Your task to perform on an android device: Go to Wikipedia Image 0: 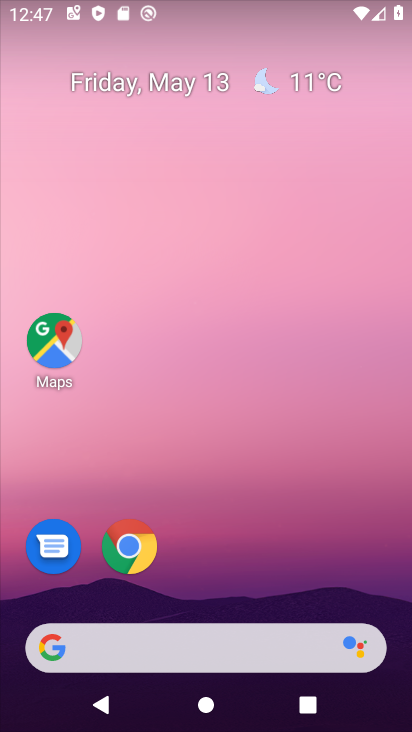
Step 0: click (148, 551)
Your task to perform on an android device: Go to Wikipedia Image 1: 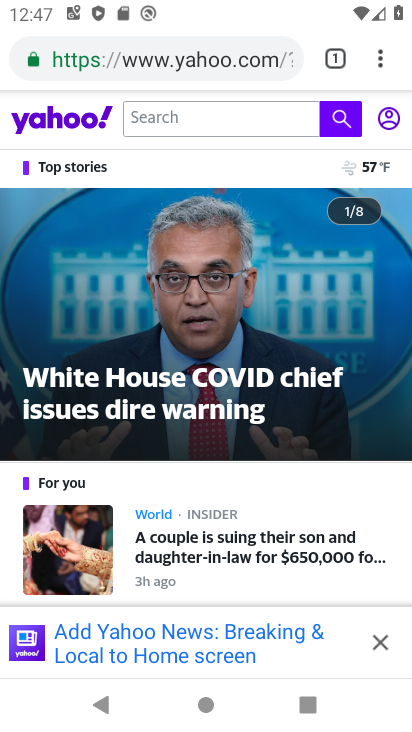
Step 1: click (378, 52)
Your task to perform on an android device: Go to Wikipedia Image 2: 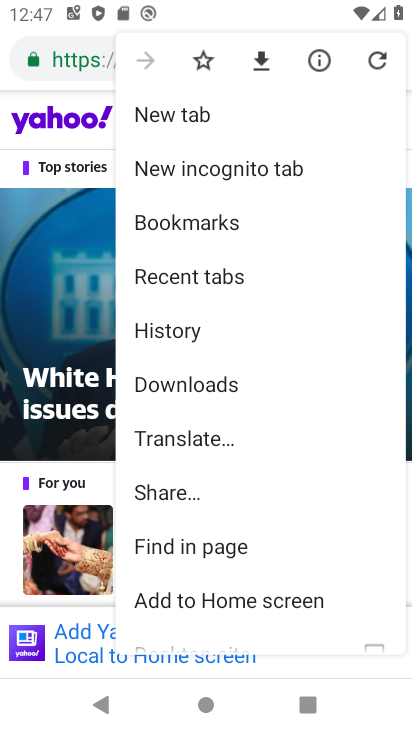
Step 2: drag from (247, 498) to (281, 274)
Your task to perform on an android device: Go to Wikipedia Image 3: 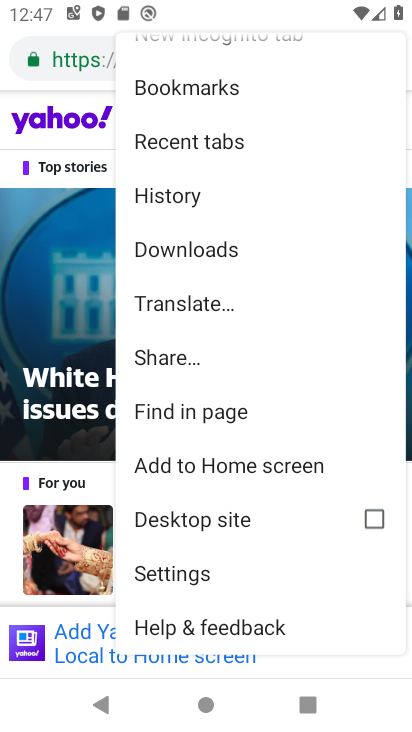
Step 3: drag from (225, 460) to (285, 224)
Your task to perform on an android device: Go to Wikipedia Image 4: 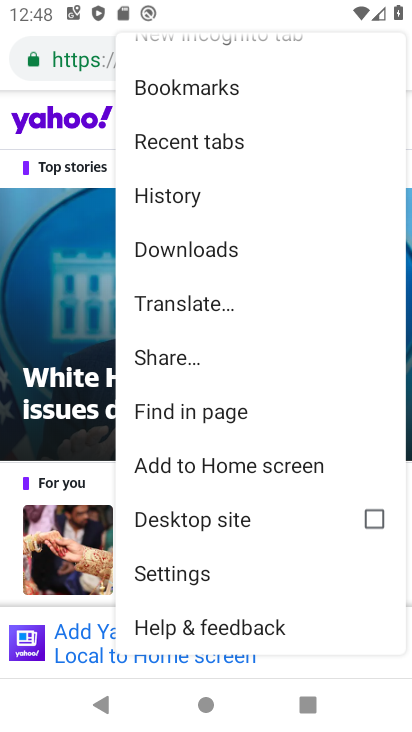
Step 4: click (58, 328)
Your task to perform on an android device: Go to Wikipedia Image 5: 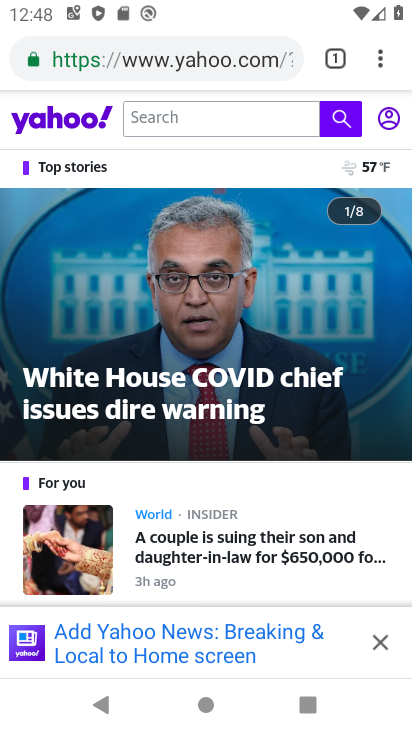
Step 5: click (226, 73)
Your task to perform on an android device: Go to Wikipedia Image 6: 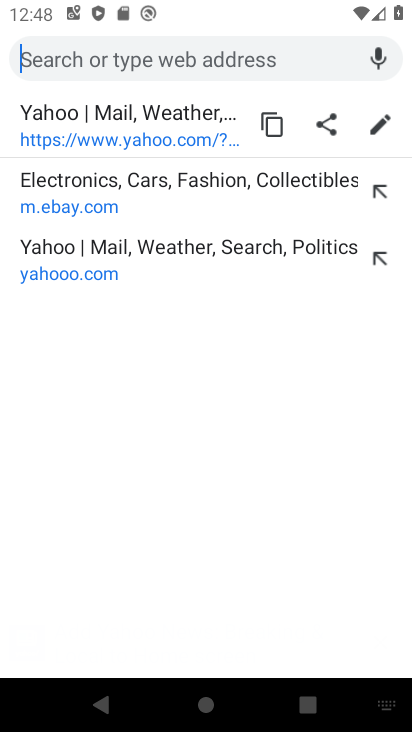
Step 6: type "wikipedia"
Your task to perform on an android device: Go to Wikipedia Image 7: 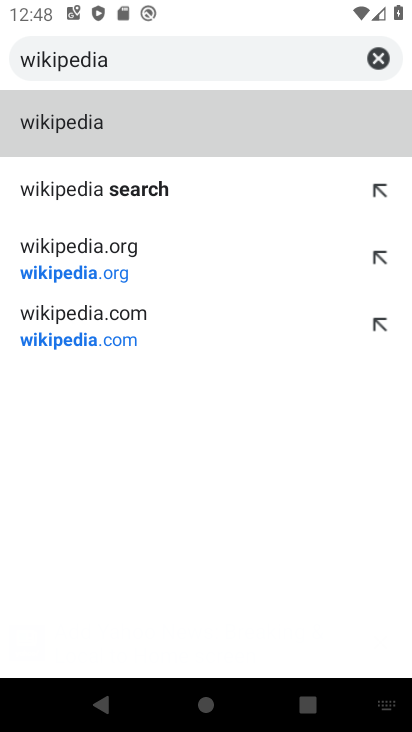
Step 7: click (210, 129)
Your task to perform on an android device: Go to Wikipedia Image 8: 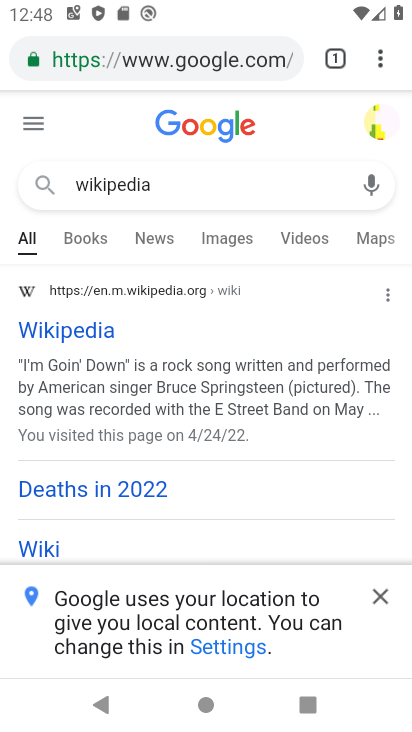
Step 8: click (65, 327)
Your task to perform on an android device: Go to Wikipedia Image 9: 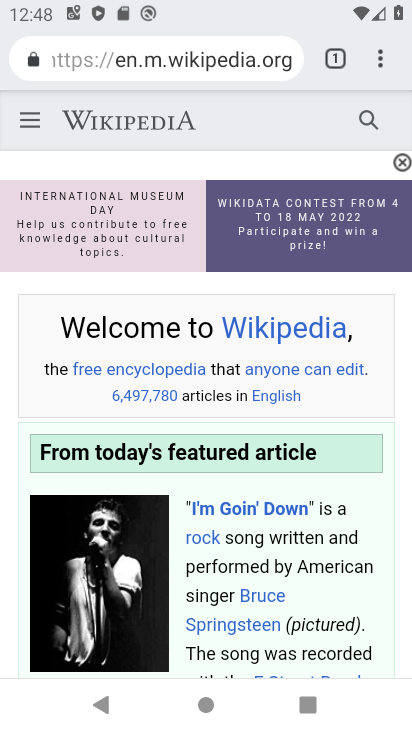
Step 9: task complete